Your task to perform on an android device: toggle translation in the chrome app Image 0: 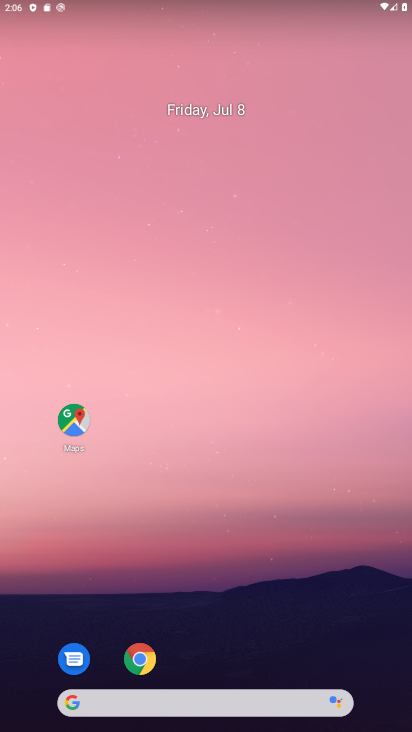
Step 0: click (130, 666)
Your task to perform on an android device: toggle translation in the chrome app Image 1: 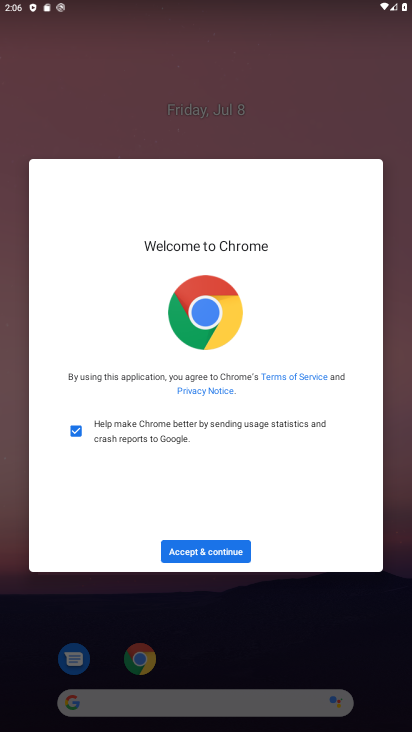
Step 1: click (201, 544)
Your task to perform on an android device: toggle translation in the chrome app Image 2: 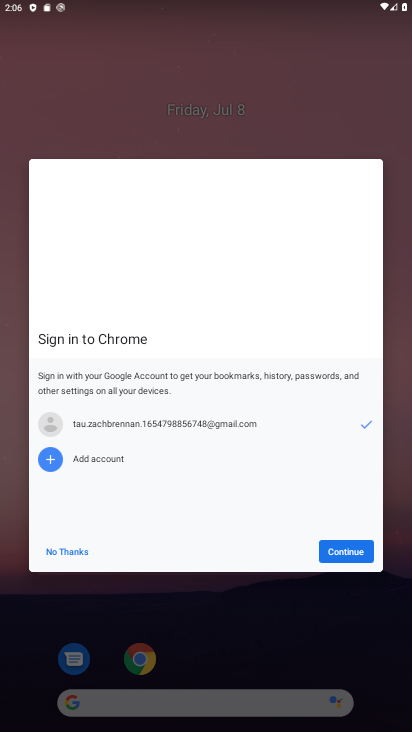
Step 2: click (355, 553)
Your task to perform on an android device: toggle translation in the chrome app Image 3: 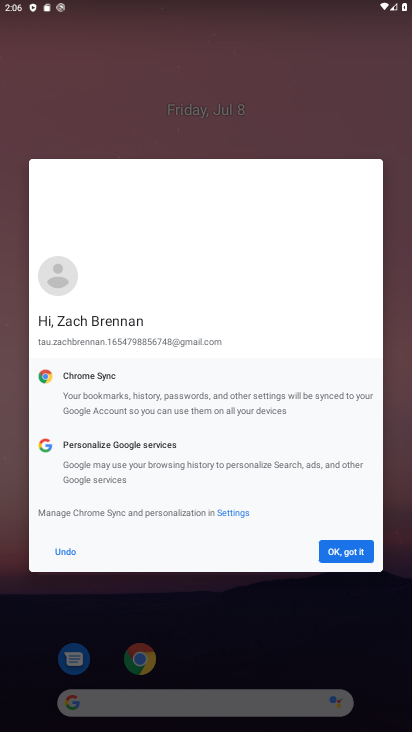
Step 3: click (356, 552)
Your task to perform on an android device: toggle translation in the chrome app Image 4: 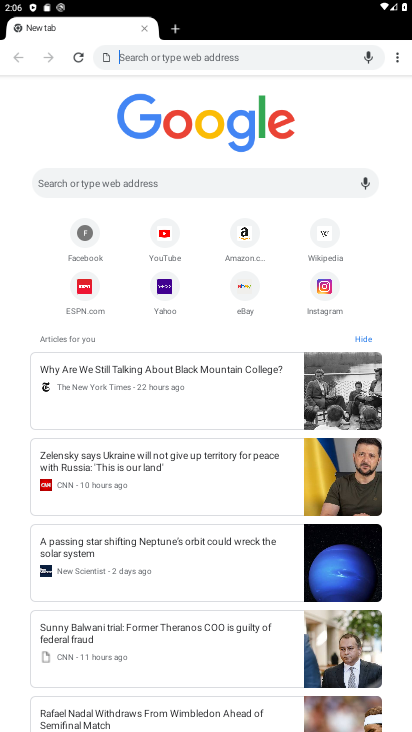
Step 4: click (393, 59)
Your task to perform on an android device: toggle translation in the chrome app Image 5: 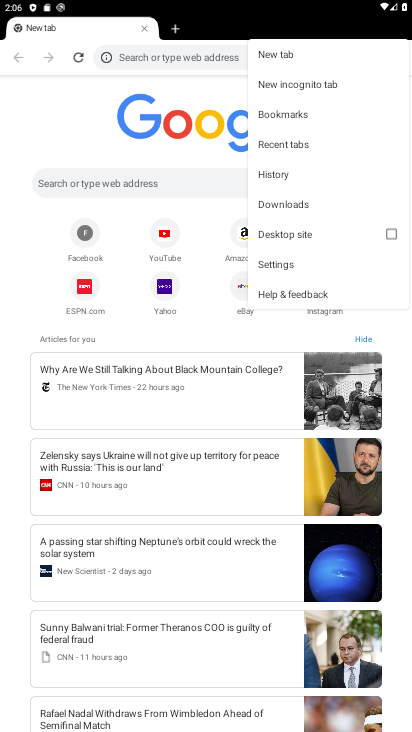
Step 5: click (288, 266)
Your task to perform on an android device: toggle translation in the chrome app Image 6: 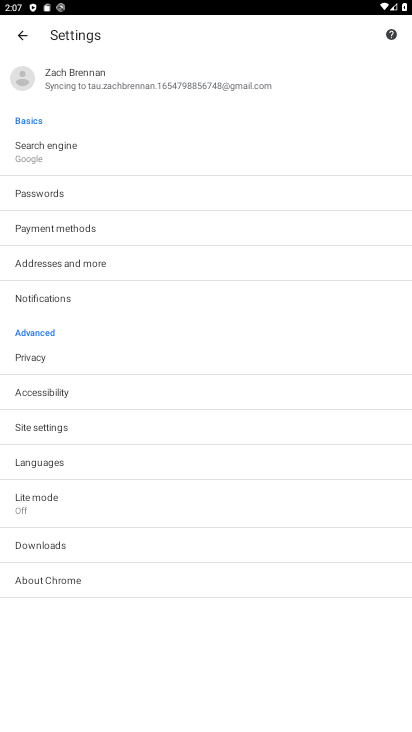
Step 6: click (69, 459)
Your task to perform on an android device: toggle translation in the chrome app Image 7: 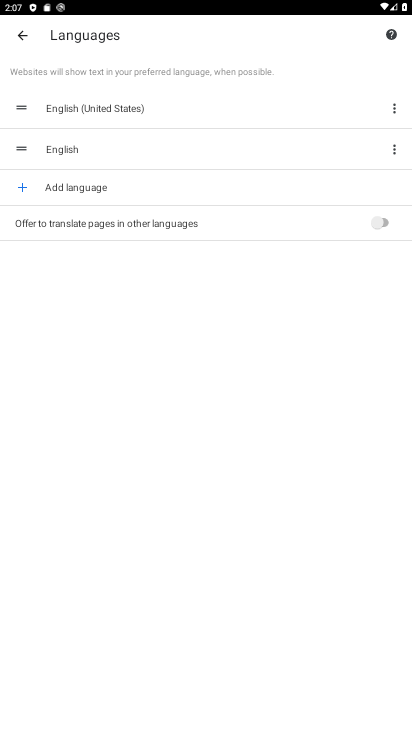
Step 7: click (389, 215)
Your task to perform on an android device: toggle translation in the chrome app Image 8: 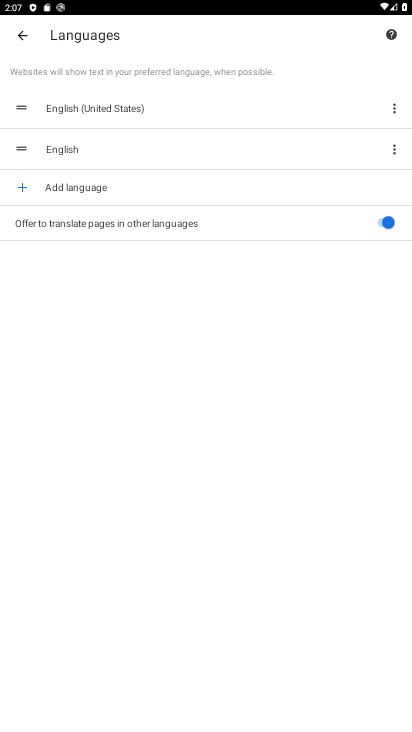
Step 8: task complete